Your task to perform on an android device: turn off airplane mode Image 0: 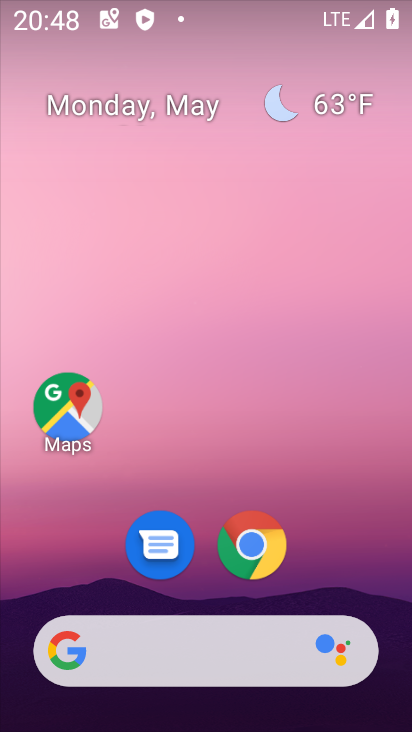
Step 0: drag from (186, 650) to (242, 3)
Your task to perform on an android device: turn off airplane mode Image 1: 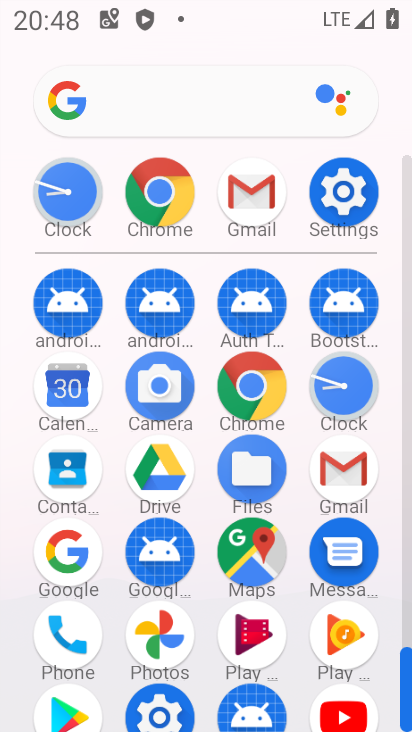
Step 1: click (340, 198)
Your task to perform on an android device: turn off airplane mode Image 2: 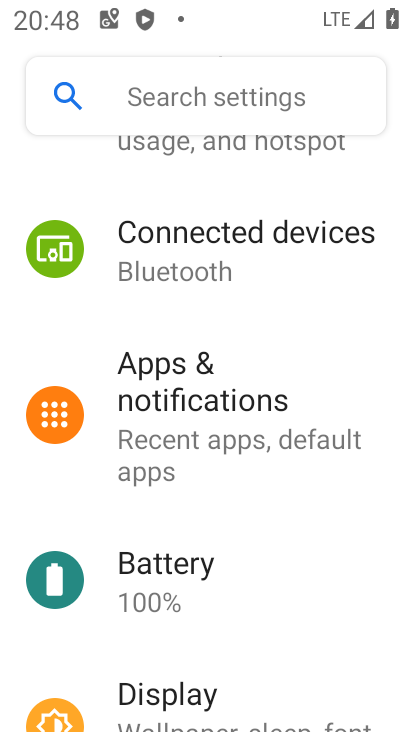
Step 2: drag from (209, 270) to (212, 544)
Your task to perform on an android device: turn off airplane mode Image 3: 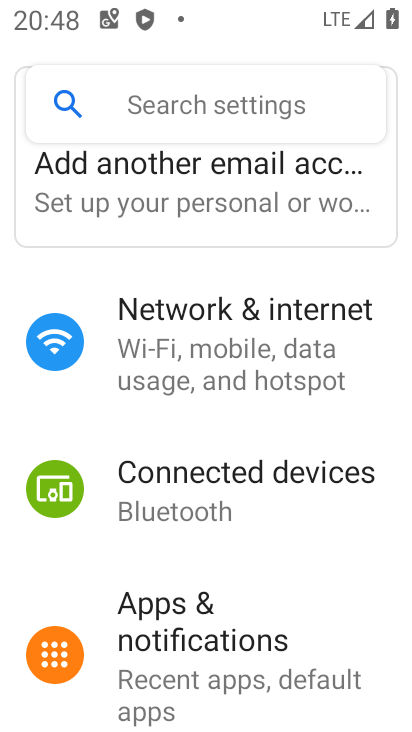
Step 3: click (202, 318)
Your task to perform on an android device: turn off airplane mode Image 4: 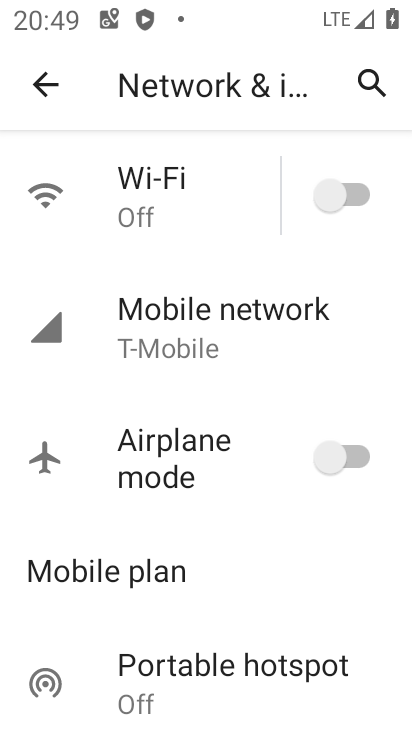
Step 4: task complete